Your task to perform on an android device: allow cookies in the chrome app Image 0: 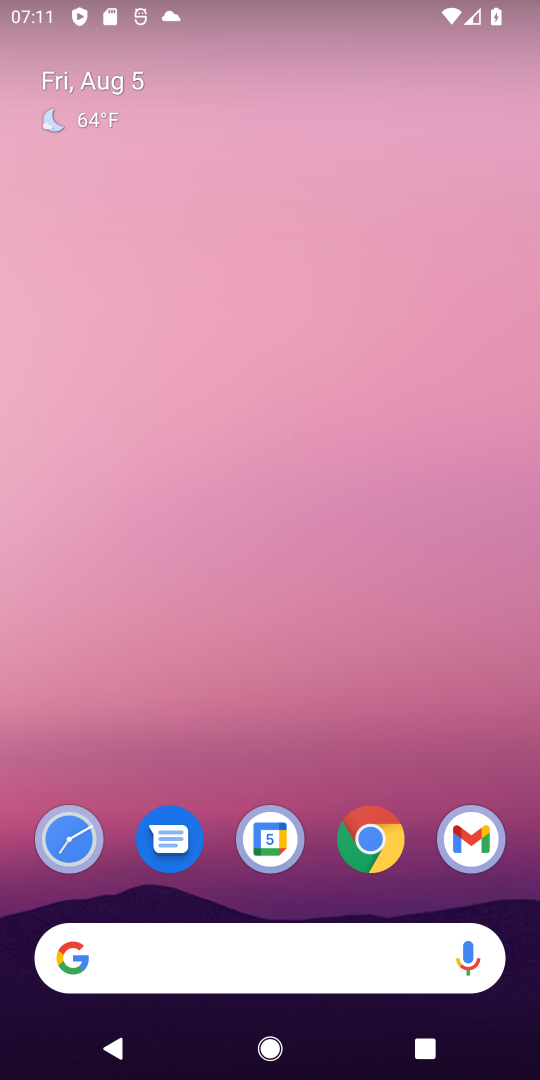
Step 0: click (370, 838)
Your task to perform on an android device: allow cookies in the chrome app Image 1: 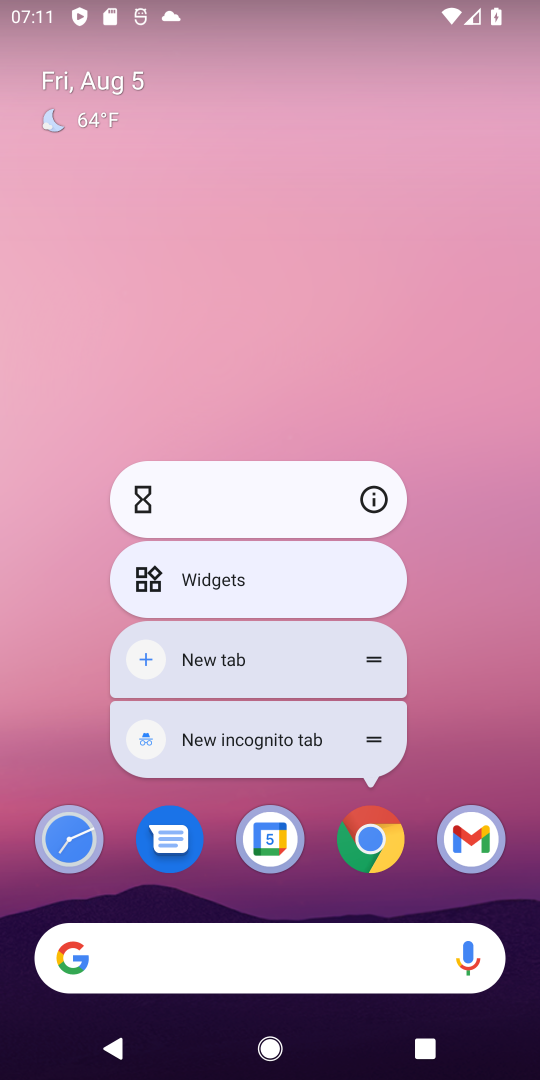
Step 1: click (370, 828)
Your task to perform on an android device: allow cookies in the chrome app Image 2: 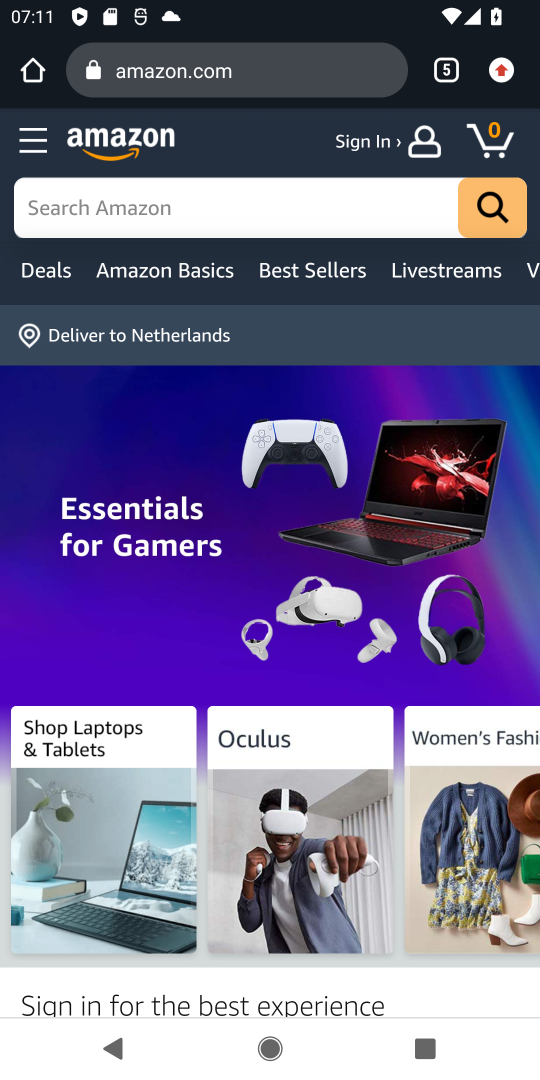
Step 2: click (495, 77)
Your task to perform on an android device: allow cookies in the chrome app Image 3: 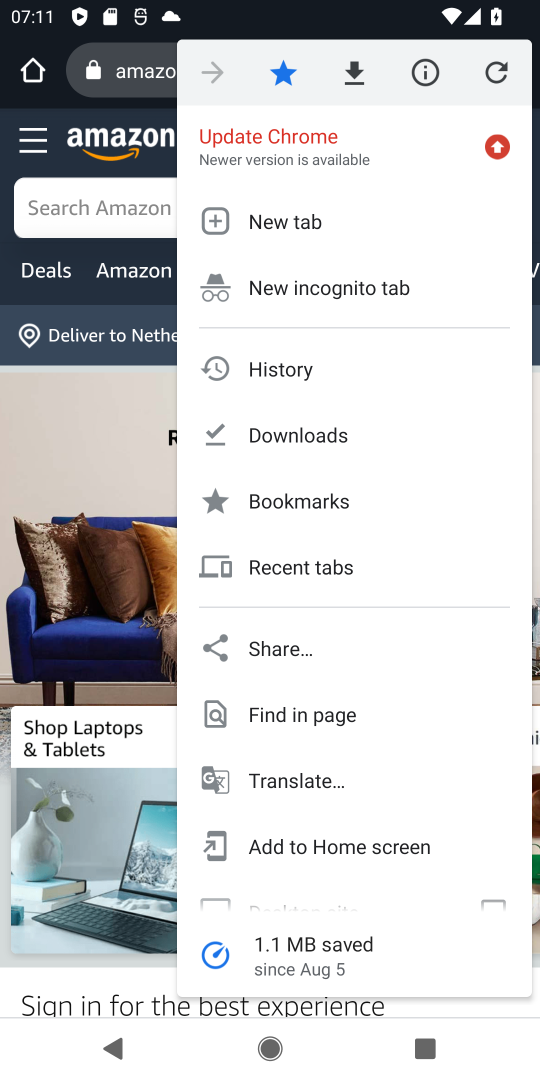
Step 3: drag from (341, 826) to (338, 390)
Your task to perform on an android device: allow cookies in the chrome app Image 4: 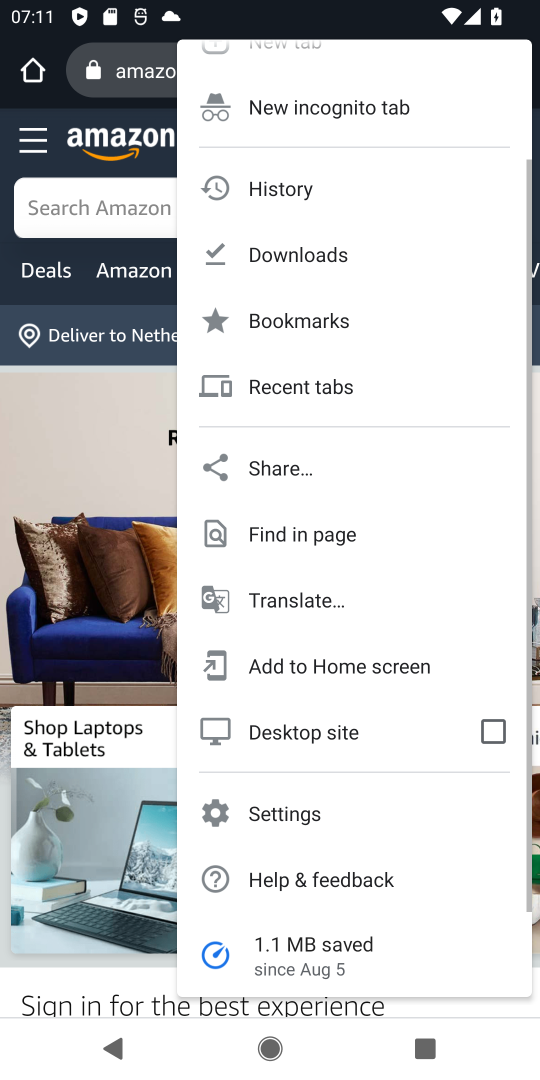
Step 4: click (298, 821)
Your task to perform on an android device: allow cookies in the chrome app Image 5: 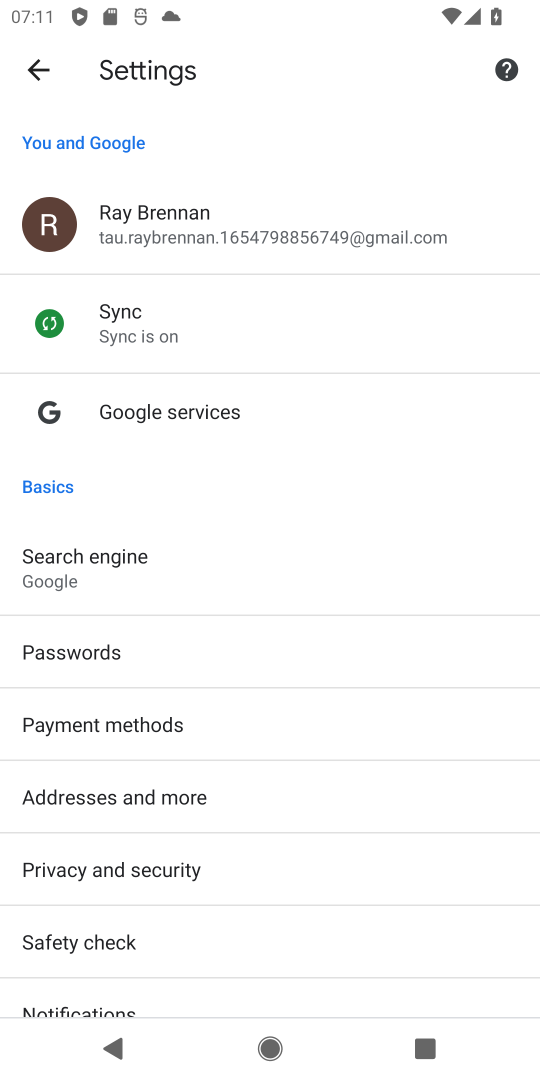
Step 5: drag from (182, 971) to (165, 403)
Your task to perform on an android device: allow cookies in the chrome app Image 6: 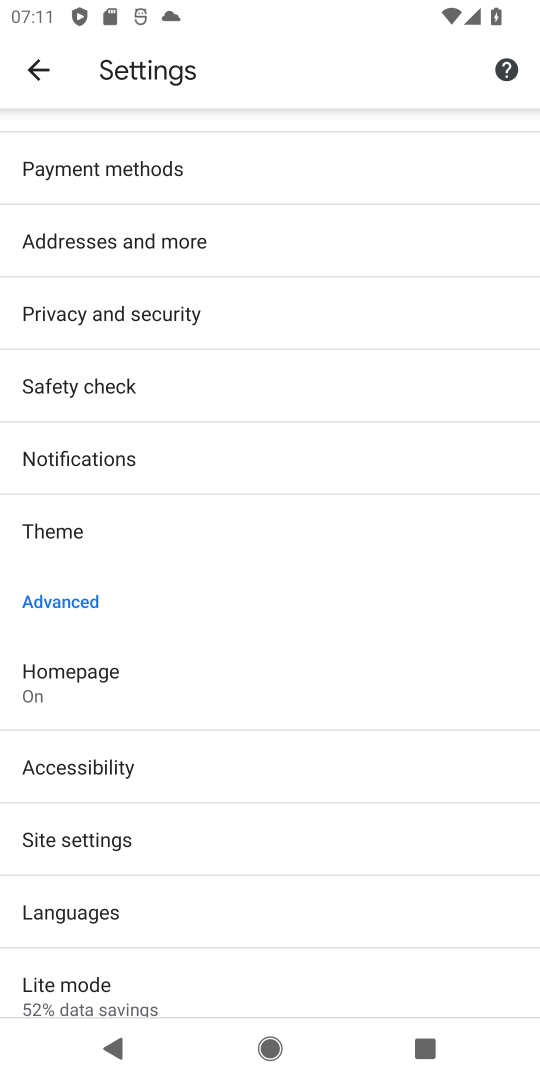
Step 6: click (75, 835)
Your task to perform on an android device: allow cookies in the chrome app Image 7: 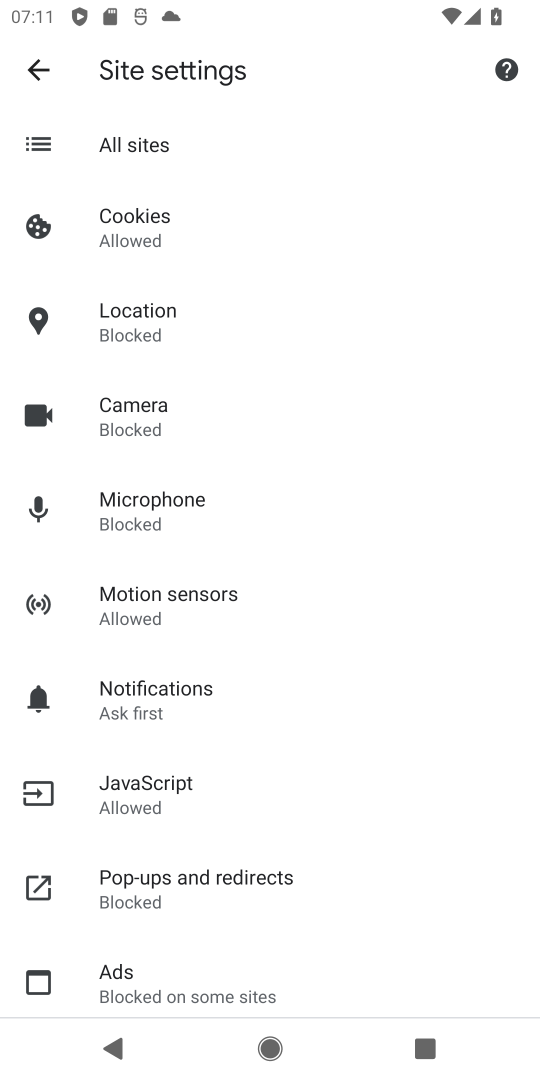
Step 7: click (135, 219)
Your task to perform on an android device: allow cookies in the chrome app Image 8: 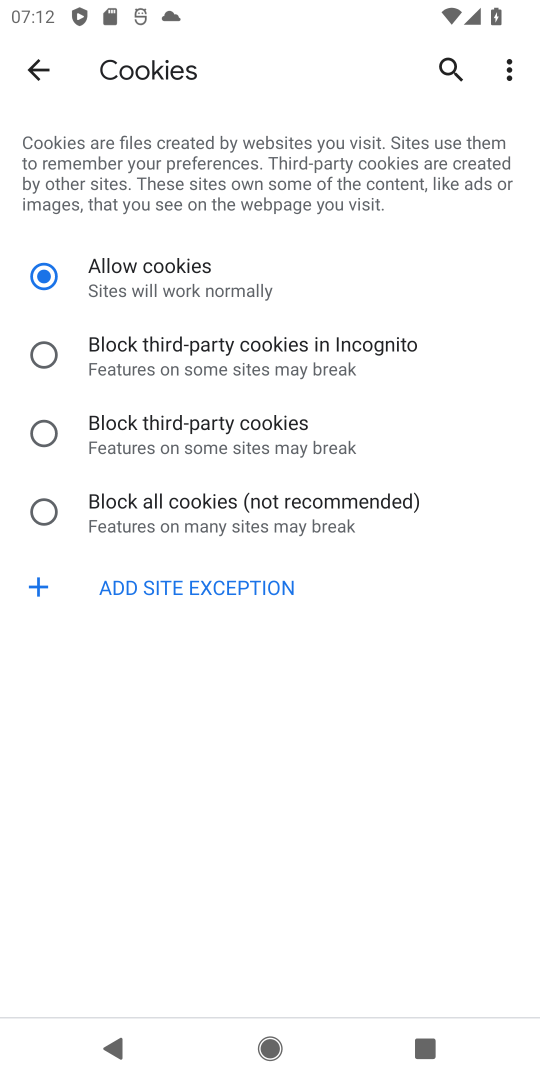
Step 8: task complete